Your task to perform on an android device: What's on my calendar tomorrow? Image 0: 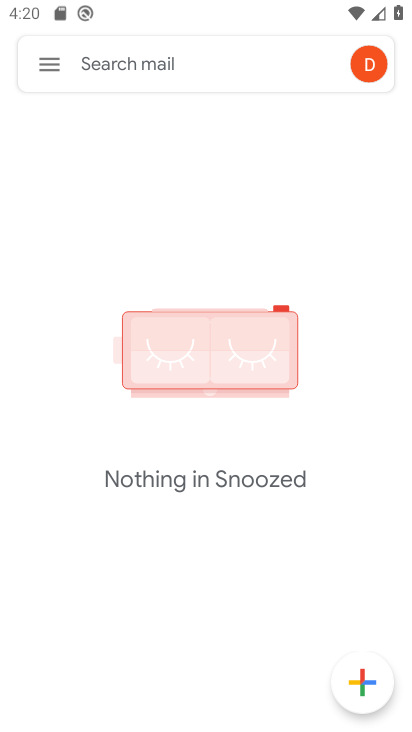
Step 0: press home button
Your task to perform on an android device: What's on my calendar tomorrow? Image 1: 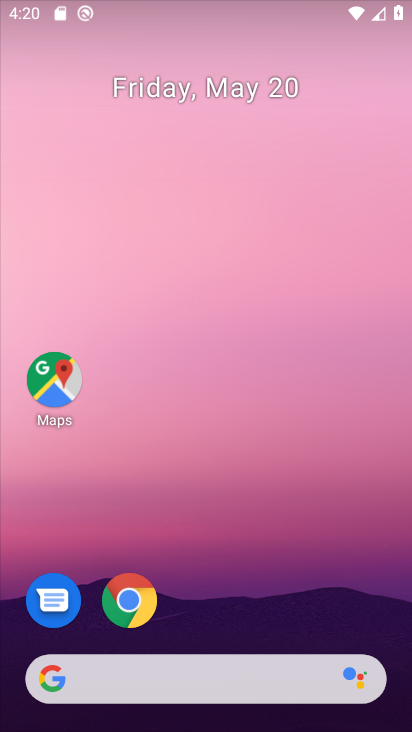
Step 1: drag from (284, 486) to (224, 22)
Your task to perform on an android device: What's on my calendar tomorrow? Image 2: 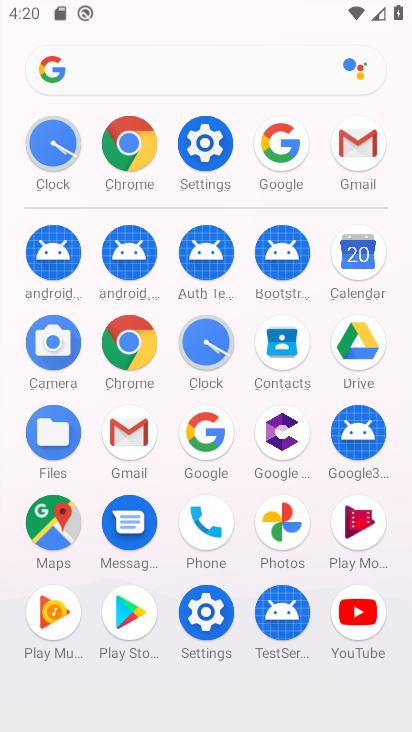
Step 2: click (357, 256)
Your task to perform on an android device: What's on my calendar tomorrow? Image 3: 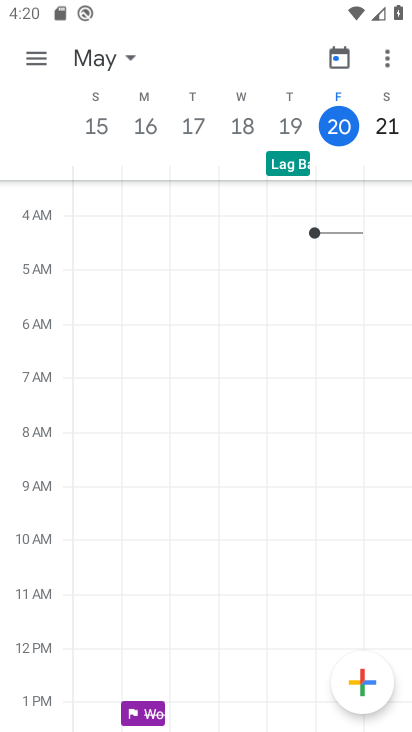
Step 3: task complete